Your task to perform on an android device: change the clock display to digital Image 0: 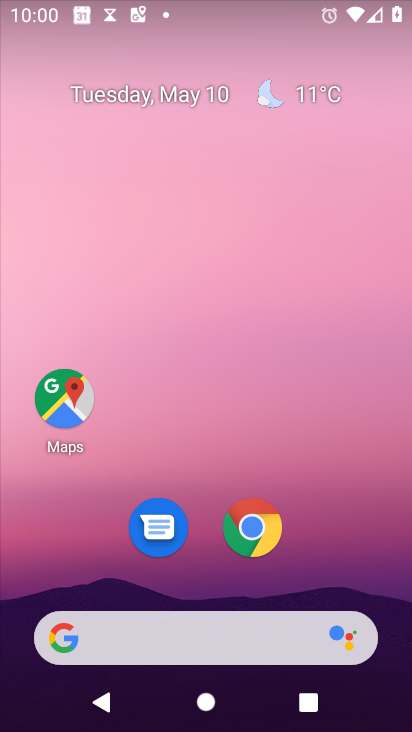
Step 0: drag from (353, 535) to (314, 192)
Your task to perform on an android device: change the clock display to digital Image 1: 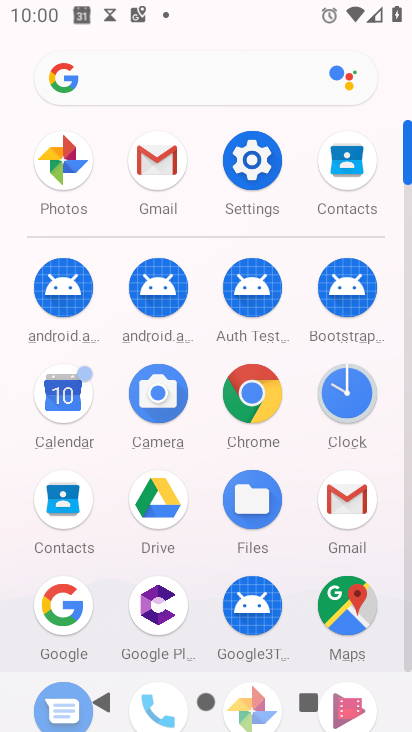
Step 1: click (331, 400)
Your task to perform on an android device: change the clock display to digital Image 2: 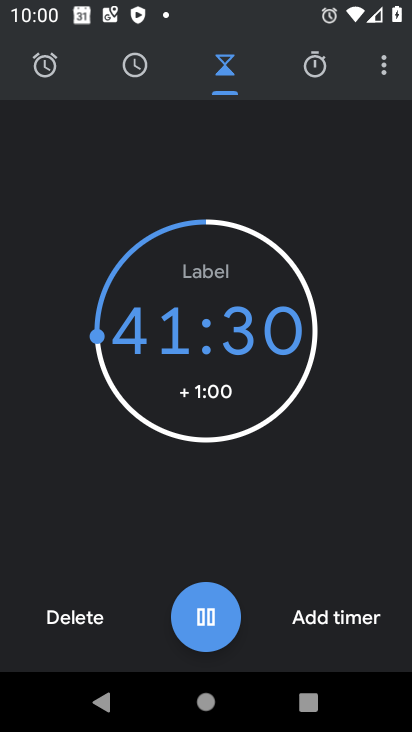
Step 2: click (392, 64)
Your task to perform on an android device: change the clock display to digital Image 3: 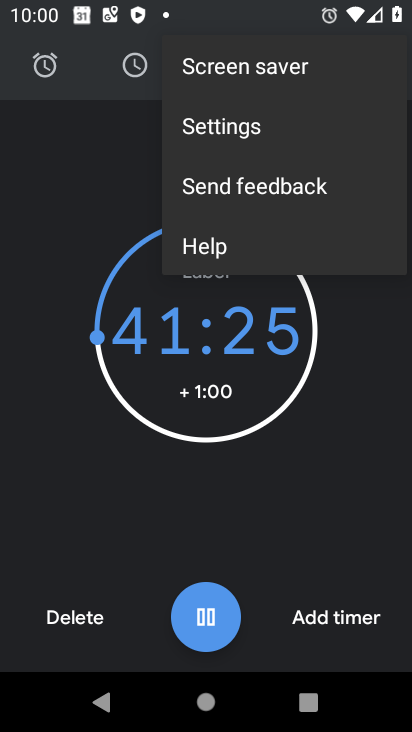
Step 3: click (304, 137)
Your task to perform on an android device: change the clock display to digital Image 4: 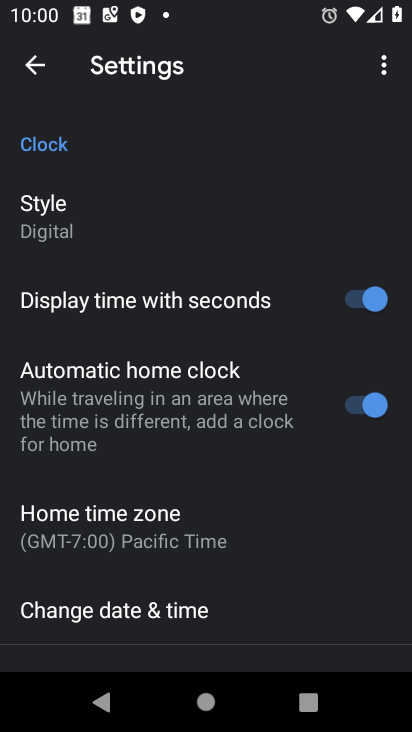
Step 4: task complete